Your task to perform on an android device: change the clock display to analog Image 0: 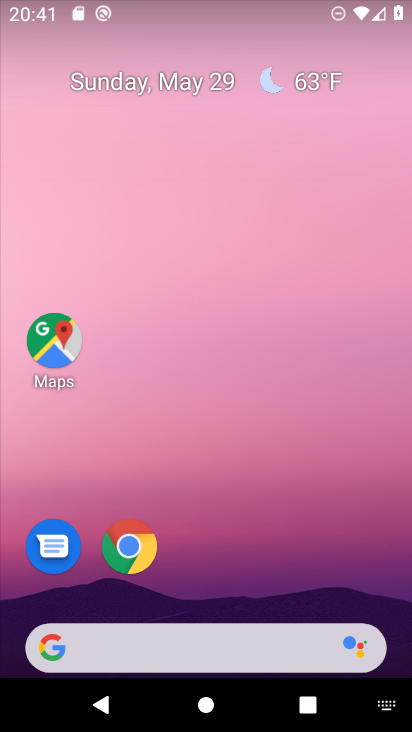
Step 0: press home button
Your task to perform on an android device: change the clock display to analog Image 1: 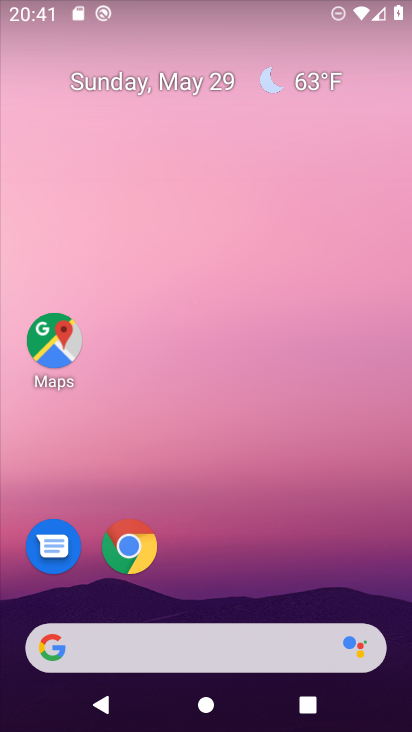
Step 1: drag from (305, 335) to (330, 204)
Your task to perform on an android device: change the clock display to analog Image 2: 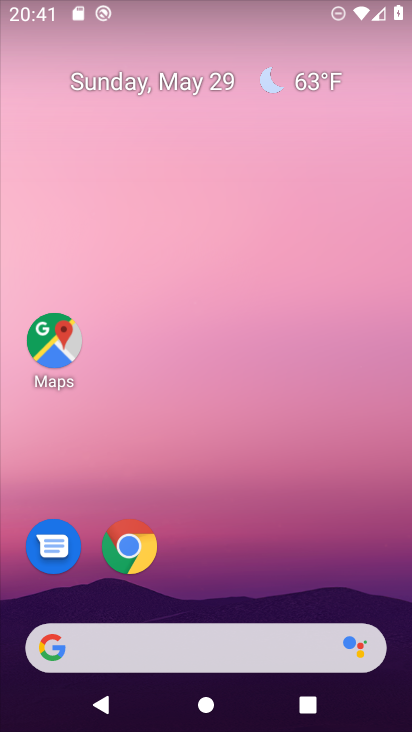
Step 2: drag from (178, 643) to (308, 164)
Your task to perform on an android device: change the clock display to analog Image 3: 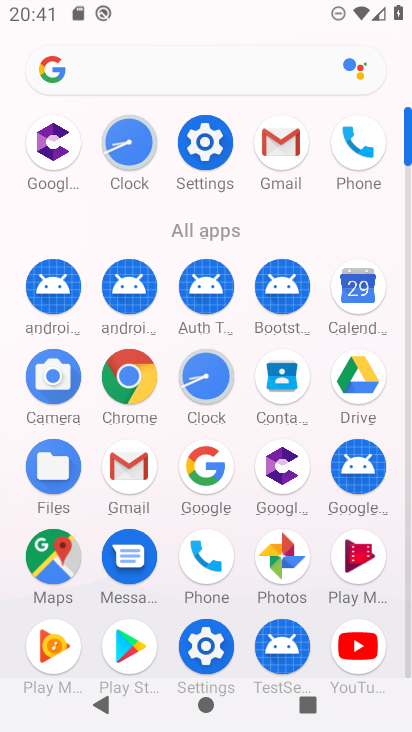
Step 3: click (210, 377)
Your task to perform on an android device: change the clock display to analog Image 4: 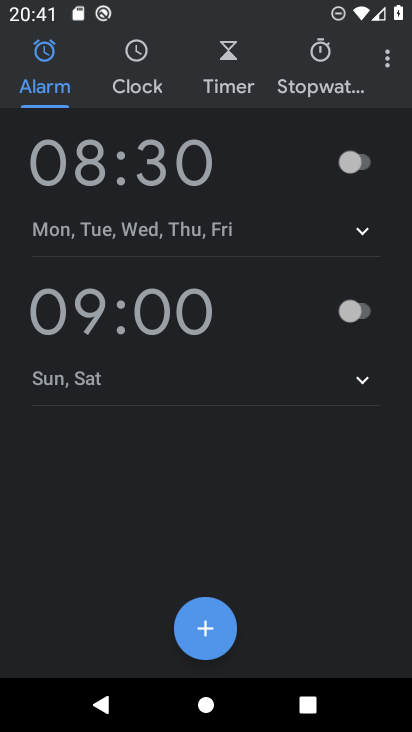
Step 4: click (387, 58)
Your task to perform on an android device: change the clock display to analog Image 5: 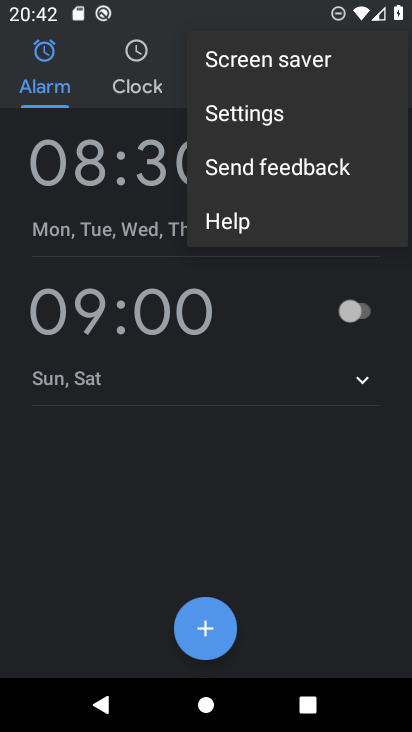
Step 5: click (229, 115)
Your task to perform on an android device: change the clock display to analog Image 6: 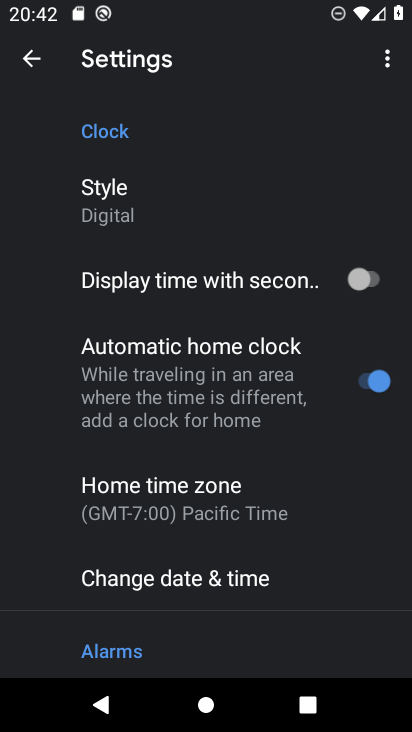
Step 6: click (123, 211)
Your task to perform on an android device: change the clock display to analog Image 7: 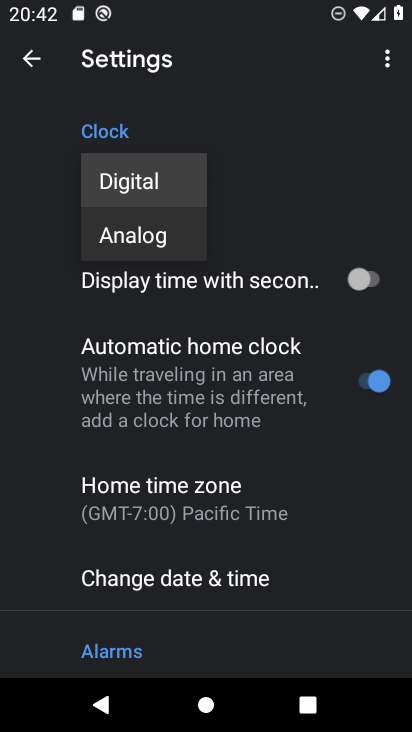
Step 7: click (153, 240)
Your task to perform on an android device: change the clock display to analog Image 8: 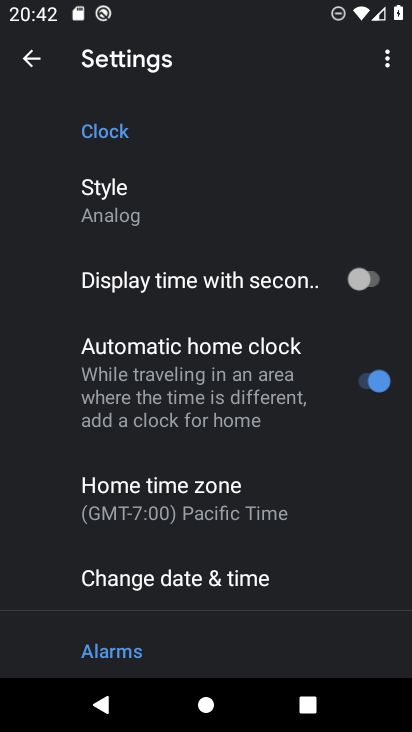
Step 8: task complete